Your task to perform on an android device: turn off airplane mode Image 0: 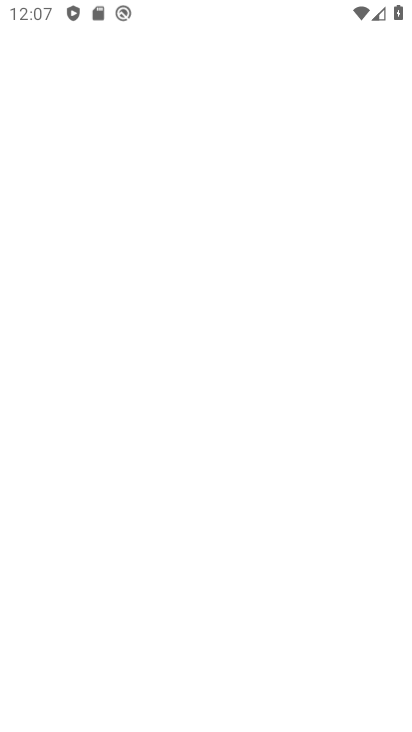
Step 0: drag from (304, 528) to (256, 158)
Your task to perform on an android device: turn off airplane mode Image 1: 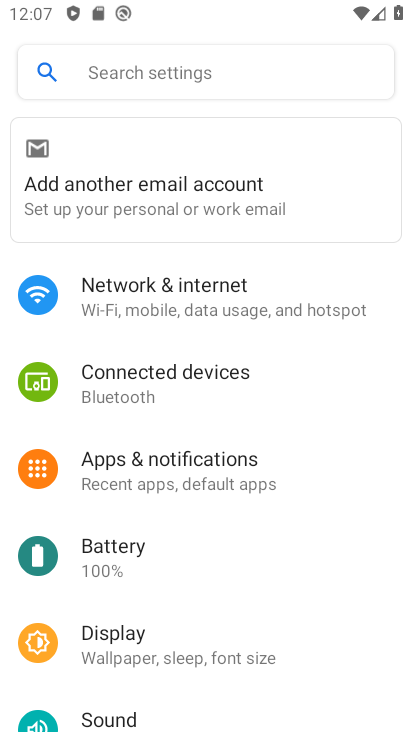
Step 1: click (252, 274)
Your task to perform on an android device: turn off airplane mode Image 2: 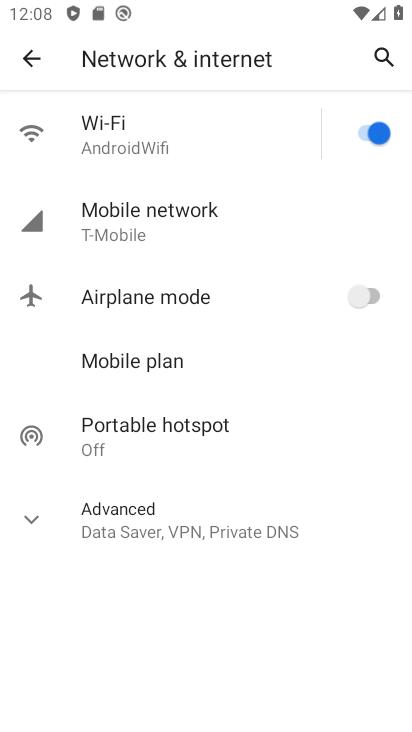
Step 2: task complete